Your task to perform on an android device: read, delete, or share a saved page in the chrome app Image 0: 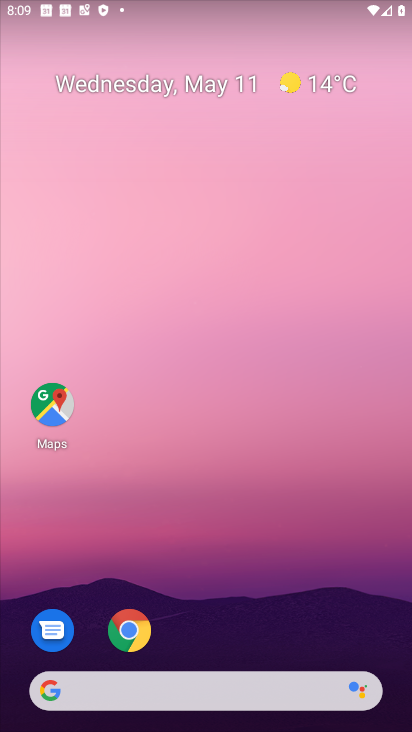
Step 0: click (132, 624)
Your task to perform on an android device: read, delete, or share a saved page in the chrome app Image 1: 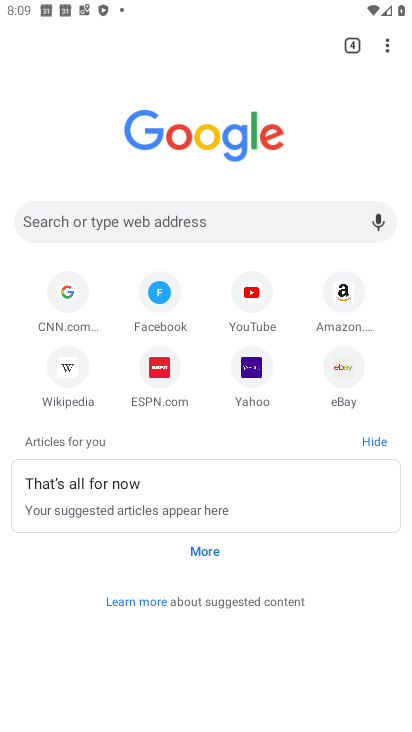
Step 1: click (383, 49)
Your task to perform on an android device: read, delete, or share a saved page in the chrome app Image 2: 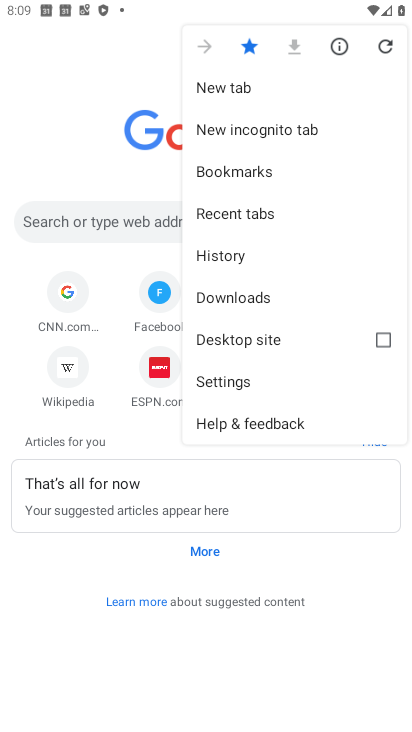
Step 2: click (221, 376)
Your task to perform on an android device: read, delete, or share a saved page in the chrome app Image 3: 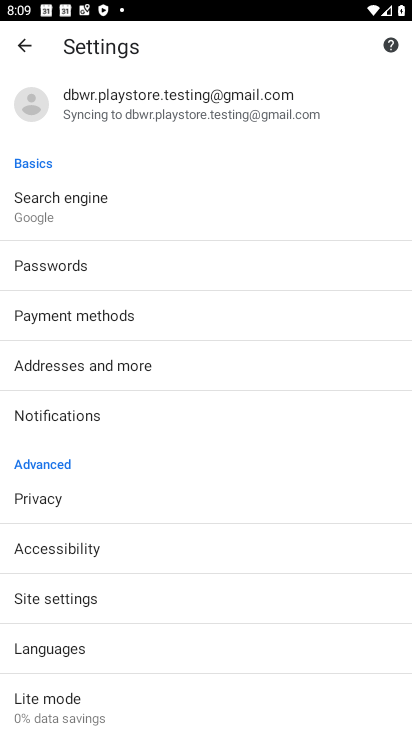
Step 3: click (29, 42)
Your task to perform on an android device: read, delete, or share a saved page in the chrome app Image 4: 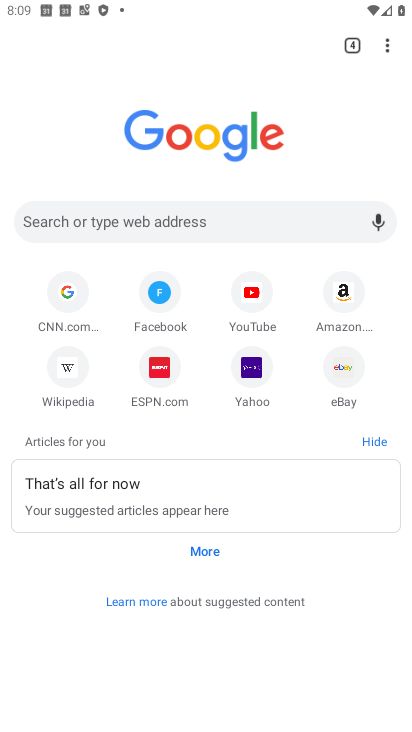
Step 4: click (385, 47)
Your task to perform on an android device: read, delete, or share a saved page in the chrome app Image 5: 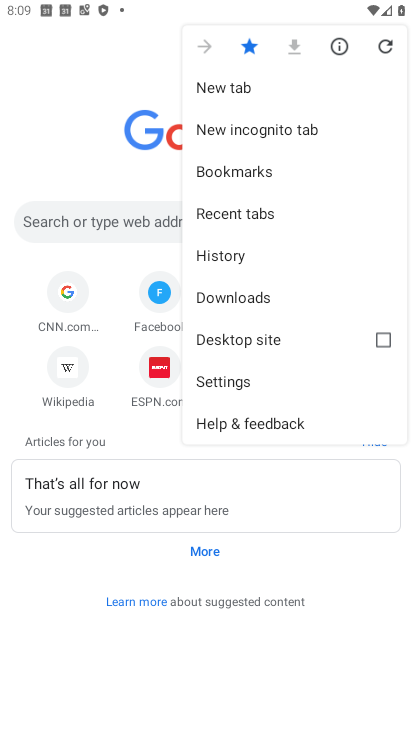
Step 5: click (228, 291)
Your task to perform on an android device: read, delete, or share a saved page in the chrome app Image 6: 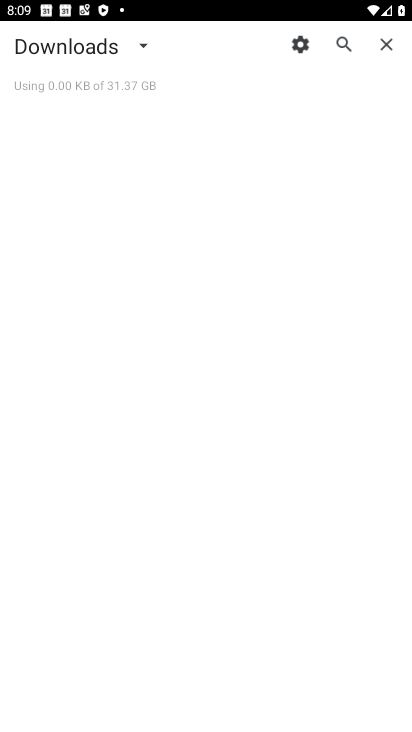
Step 6: task complete